Your task to perform on an android device: Go to location settings Image 0: 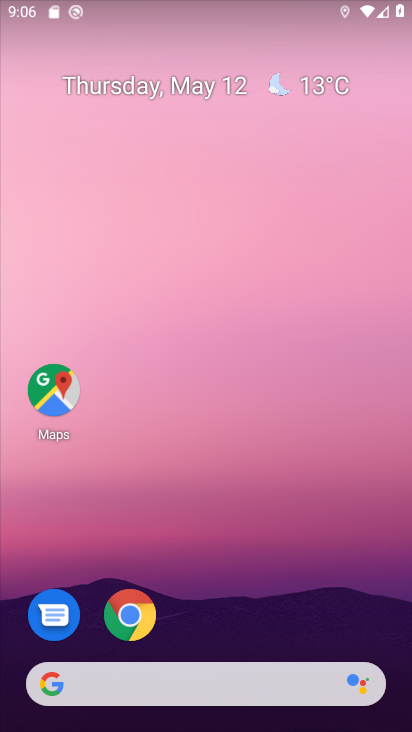
Step 0: drag from (248, 566) to (147, 117)
Your task to perform on an android device: Go to location settings Image 1: 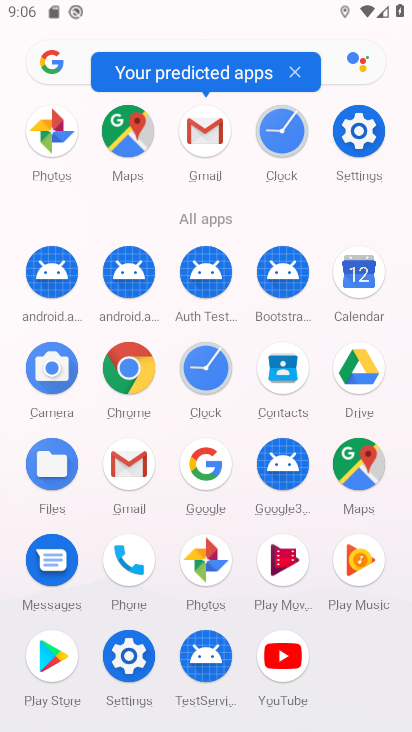
Step 1: click (359, 134)
Your task to perform on an android device: Go to location settings Image 2: 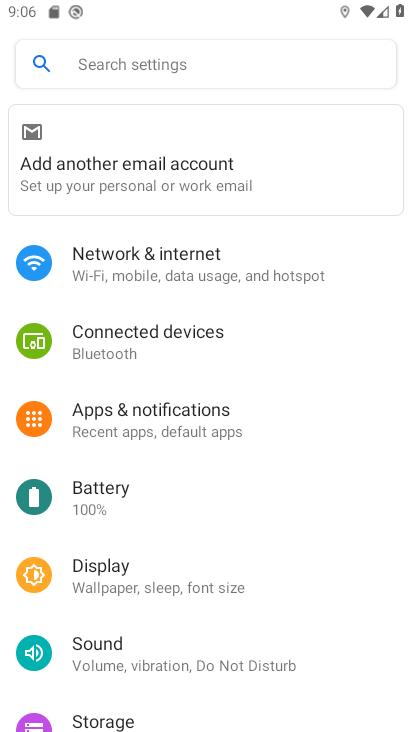
Step 2: drag from (155, 619) to (78, 247)
Your task to perform on an android device: Go to location settings Image 3: 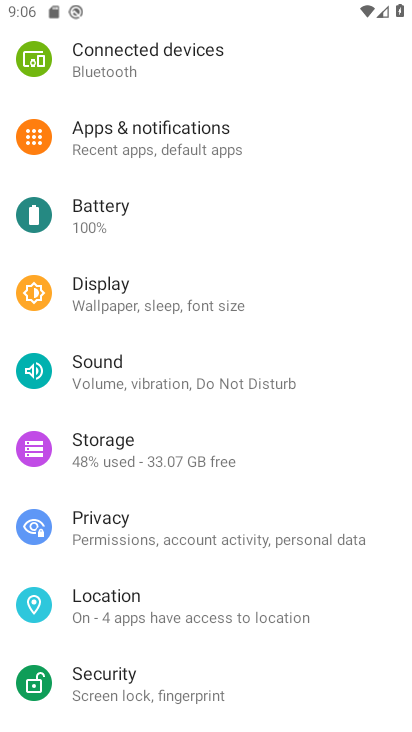
Step 3: click (114, 593)
Your task to perform on an android device: Go to location settings Image 4: 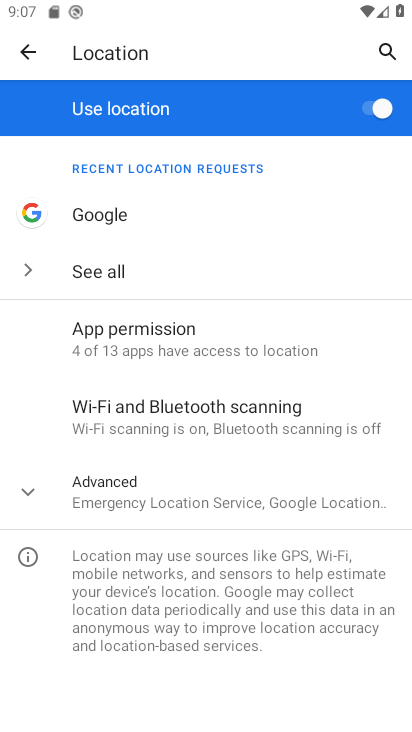
Step 4: task complete